Your task to perform on an android device: turn off notifications in google photos Image 0: 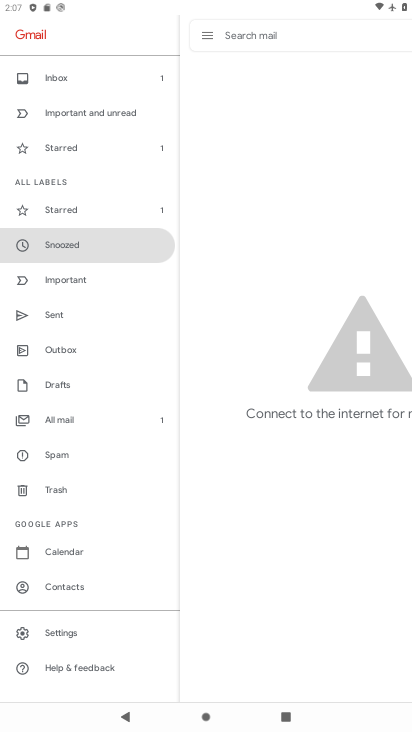
Step 0: press home button
Your task to perform on an android device: turn off notifications in google photos Image 1: 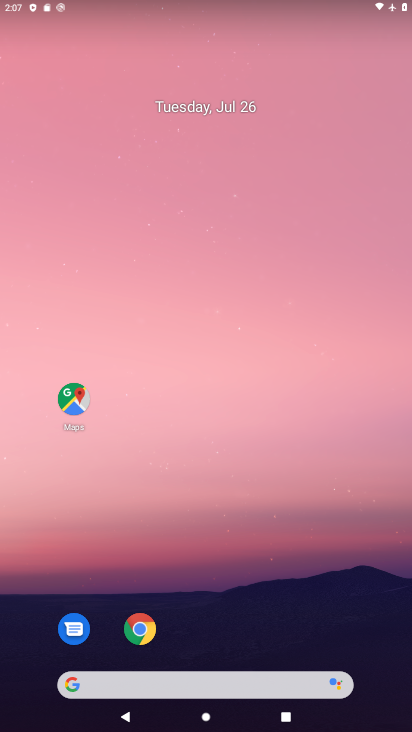
Step 1: drag from (213, 664) to (238, 35)
Your task to perform on an android device: turn off notifications in google photos Image 2: 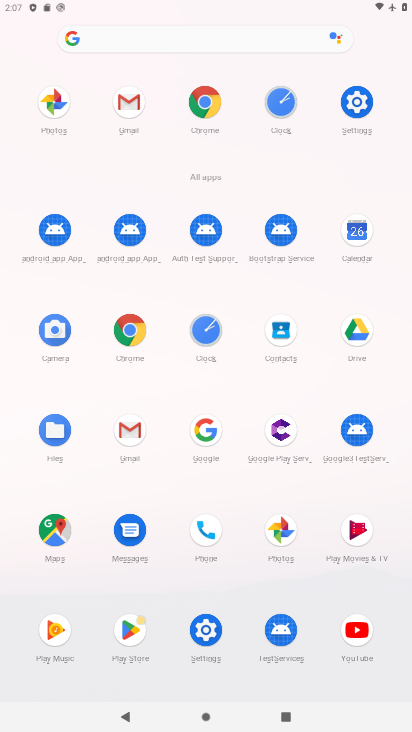
Step 2: click (298, 520)
Your task to perform on an android device: turn off notifications in google photos Image 3: 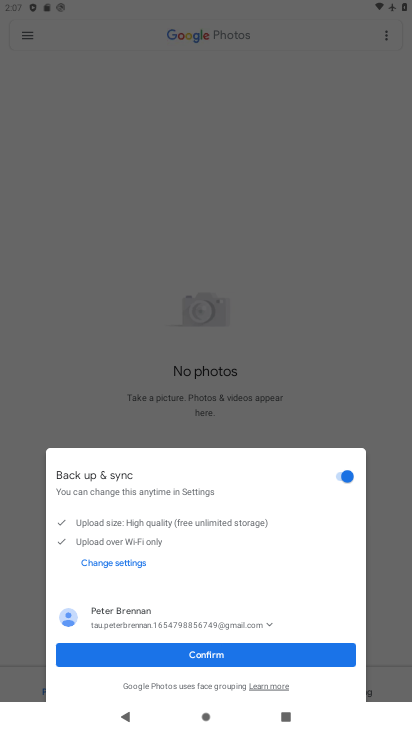
Step 3: click (207, 662)
Your task to perform on an android device: turn off notifications in google photos Image 4: 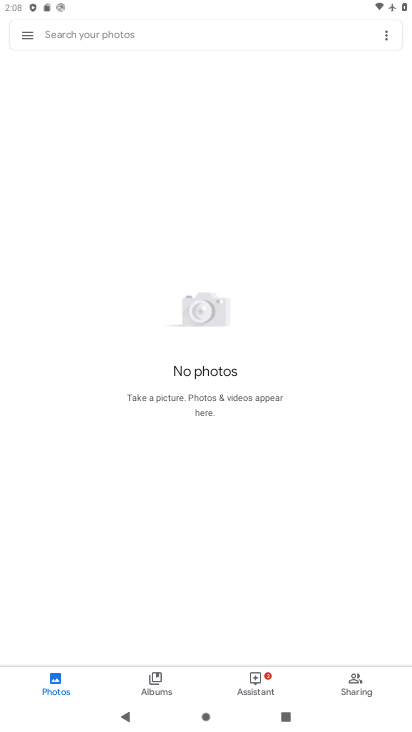
Step 4: click (31, 34)
Your task to perform on an android device: turn off notifications in google photos Image 5: 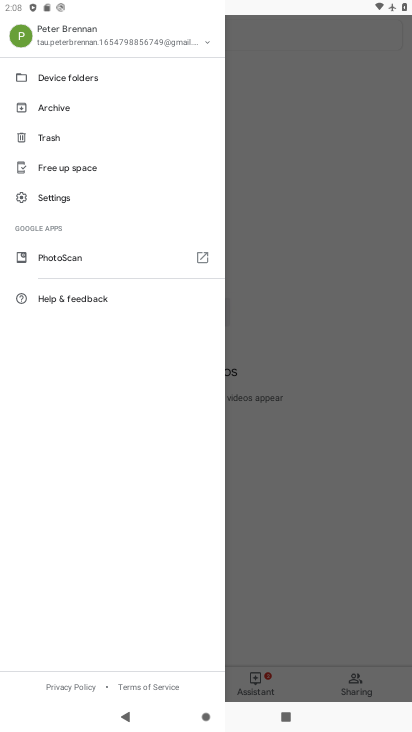
Step 5: click (40, 197)
Your task to perform on an android device: turn off notifications in google photos Image 6: 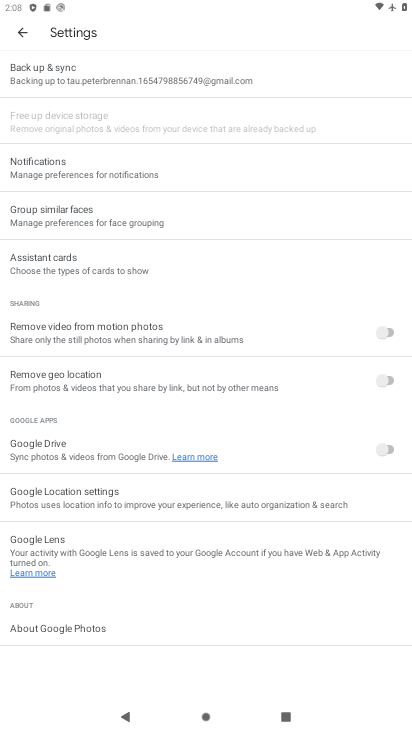
Step 6: click (51, 164)
Your task to perform on an android device: turn off notifications in google photos Image 7: 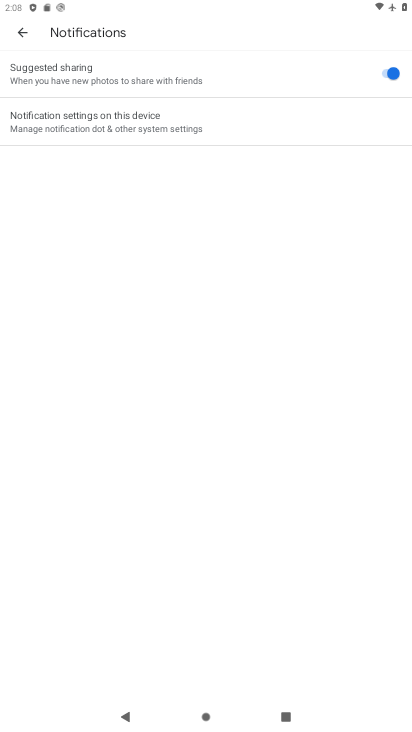
Step 7: click (171, 124)
Your task to perform on an android device: turn off notifications in google photos Image 8: 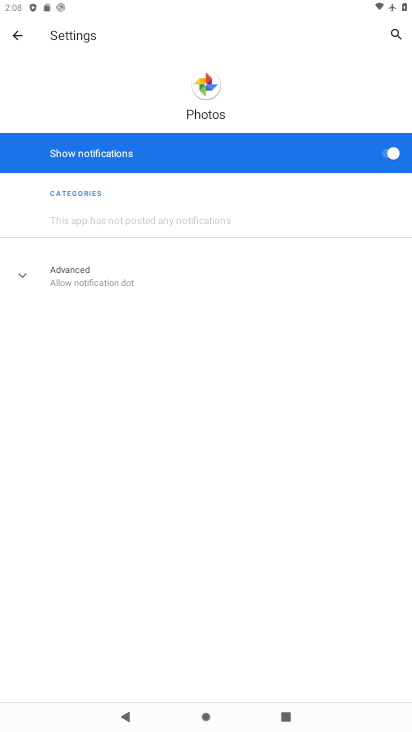
Step 8: click (387, 155)
Your task to perform on an android device: turn off notifications in google photos Image 9: 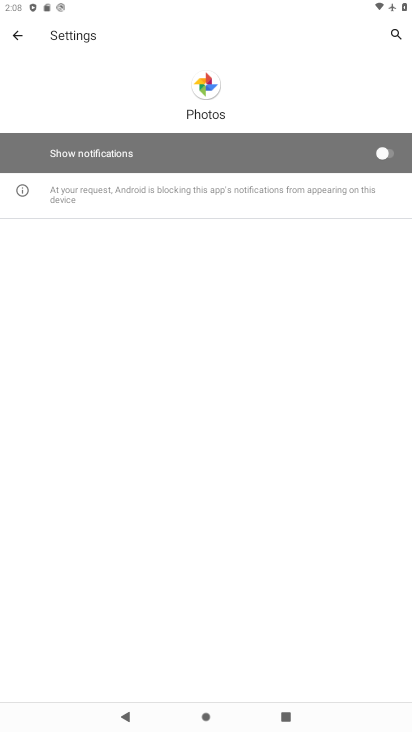
Step 9: task complete